Your task to perform on an android device: What's the weather? Image 0: 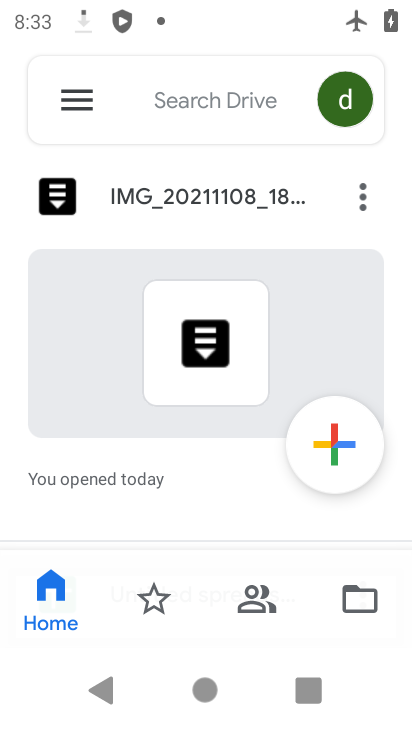
Step 0: press home button
Your task to perform on an android device: What's the weather? Image 1: 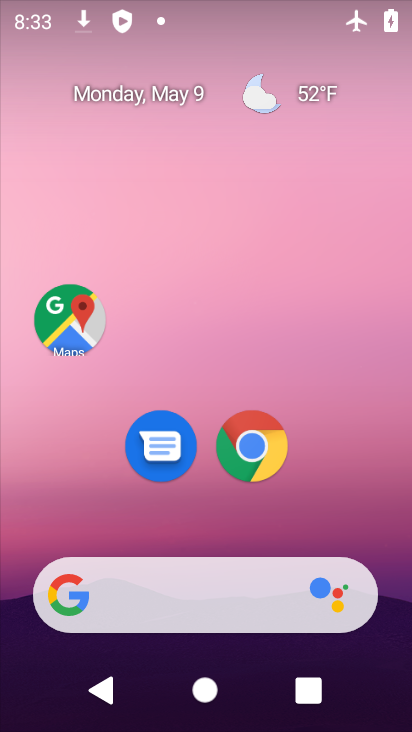
Step 1: click (311, 94)
Your task to perform on an android device: What's the weather? Image 2: 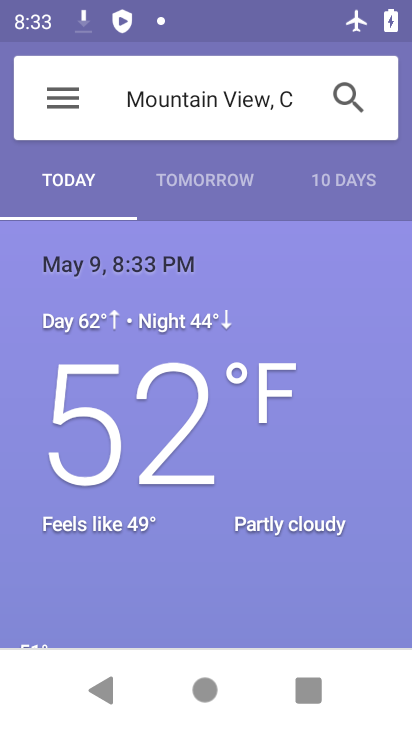
Step 2: task complete